Your task to perform on an android device: find photos in the google photos app Image 0: 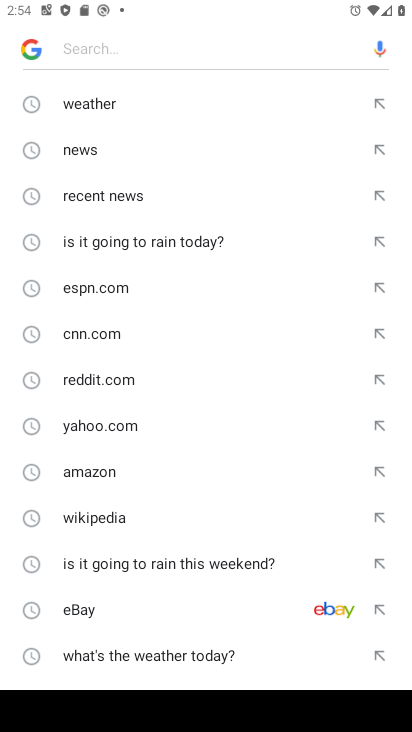
Step 0: press home button
Your task to perform on an android device: find photos in the google photos app Image 1: 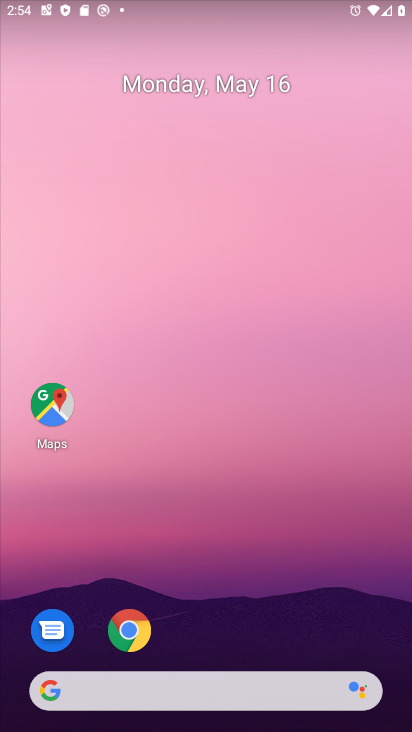
Step 1: drag from (221, 661) to (251, 73)
Your task to perform on an android device: find photos in the google photos app Image 2: 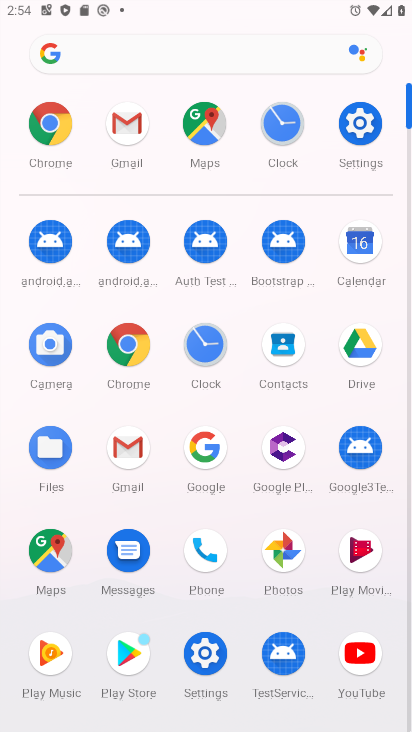
Step 2: click (280, 544)
Your task to perform on an android device: find photos in the google photos app Image 3: 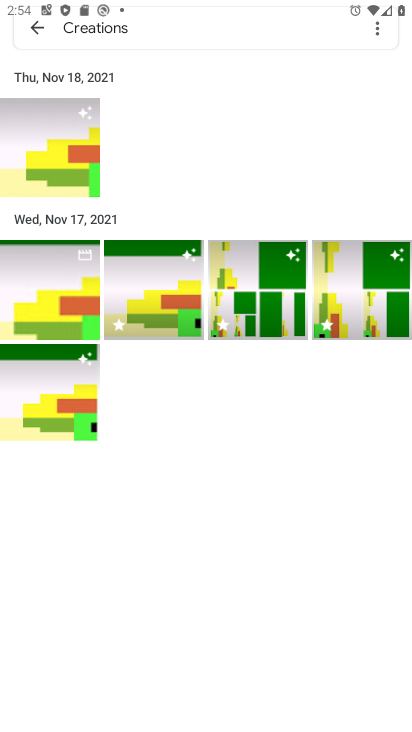
Step 3: click (38, 30)
Your task to perform on an android device: find photos in the google photos app Image 4: 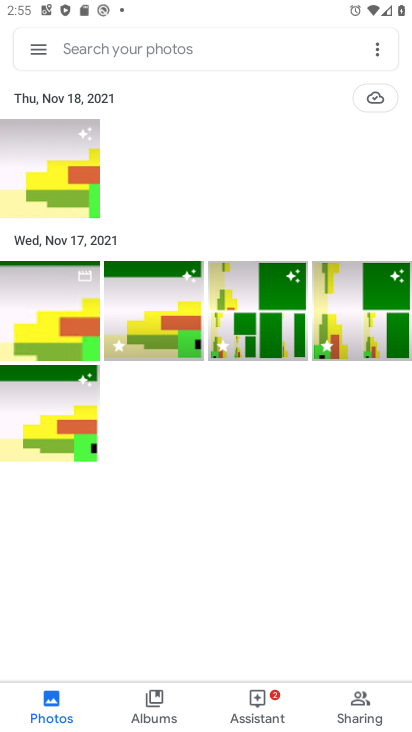
Step 4: task complete